Your task to perform on an android device: Open Wikipedia Image 0: 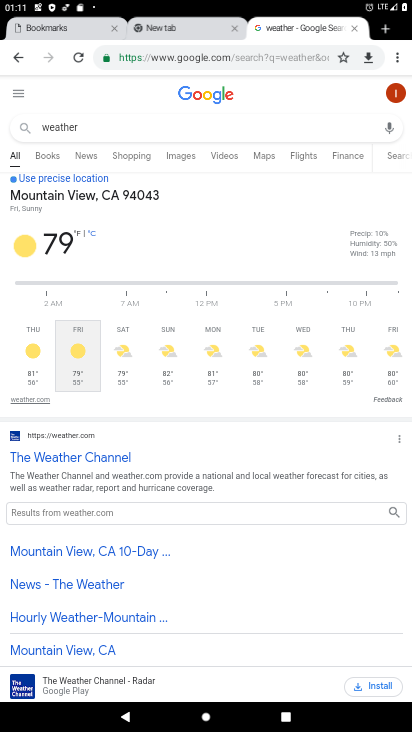
Step 0: click (383, 24)
Your task to perform on an android device: Open Wikipedia Image 1: 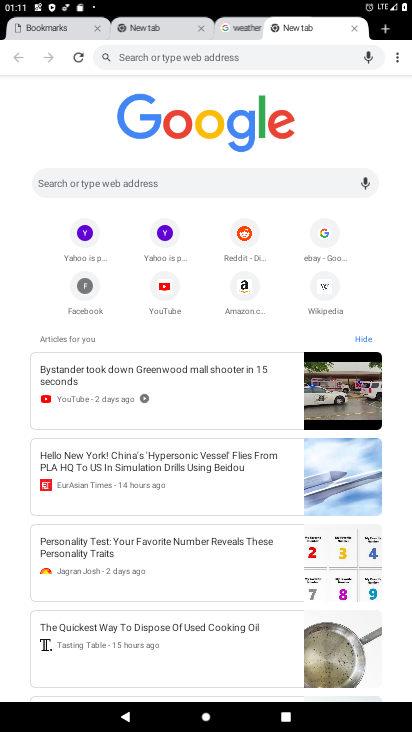
Step 1: click (250, 56)
Your task to perform on an android device: Open Wikipedia Image 2: 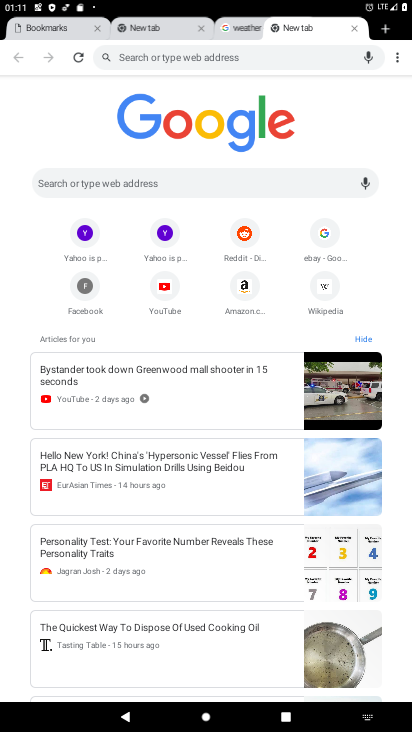
Step 2: type "wikipedia"
Your task to perform on an android device: Open Wikipedia Image 3: 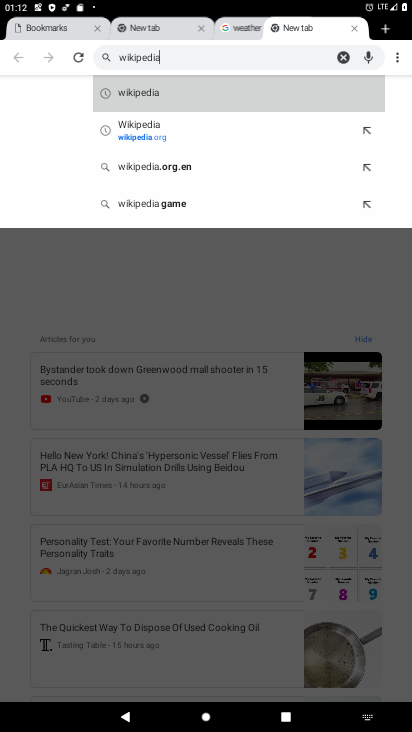
Step 3: click (127, 139)
Your task to perform on an android device: Open Wikipedia Image 4: 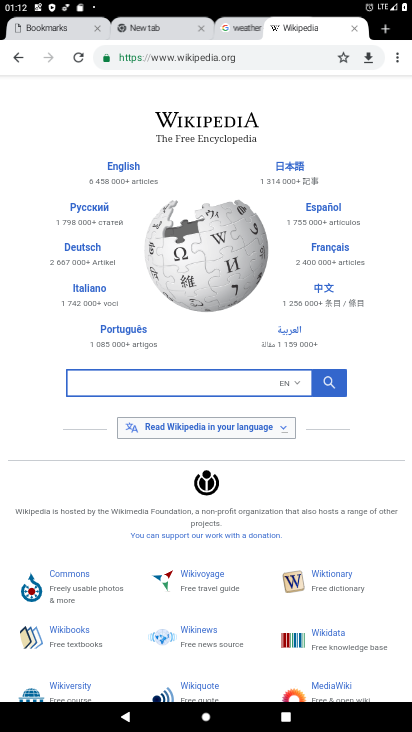
Step 4: task complete